Your task to perform on an android device: Open Youtube and go to the subscriptions tab Image 0: 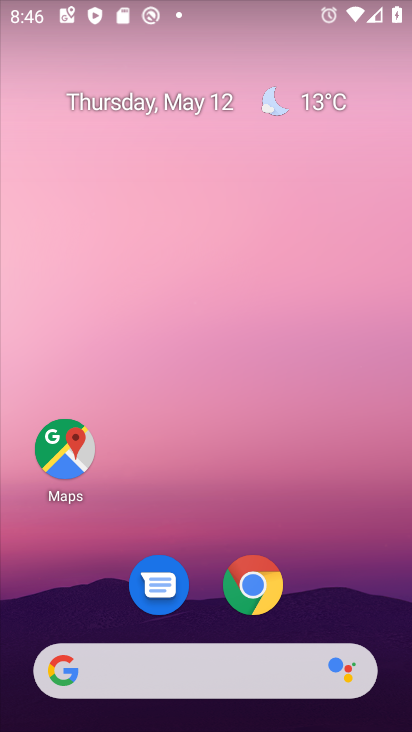
Step 0: drag from (286, 485) to (230, 57)
Your task to perform on an android device: Open Youtube and go to the subscriptions tab Image 1: 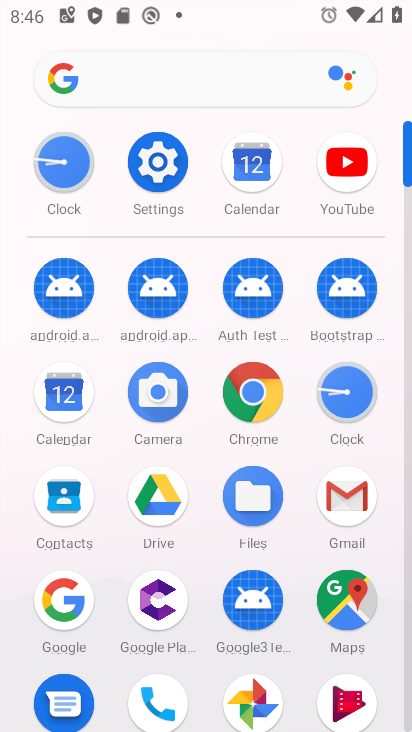
Step 1: click (356, 157)
Your task to perform on an android device: Open Youtube and go to the subscriptions tab Image 2: 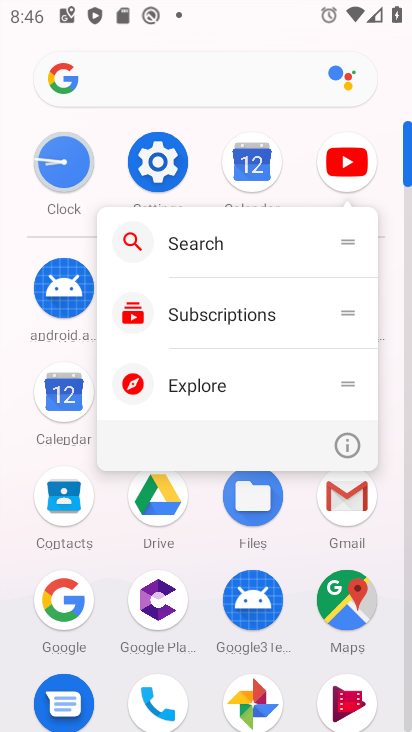
Step 2: click (354, 164)
Your task to perform on an android device: Open Youtube and go to the subscriptions tab Image 3: 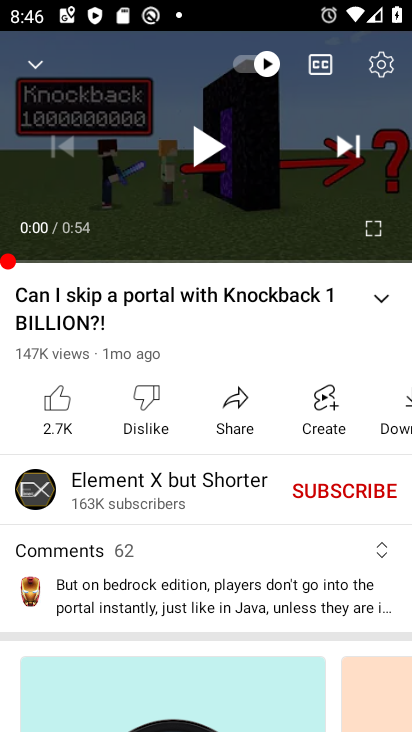
Step 3: press back button
Your task to perform on an android device: Open Youtube and go to the subscriptions tab Image 4: 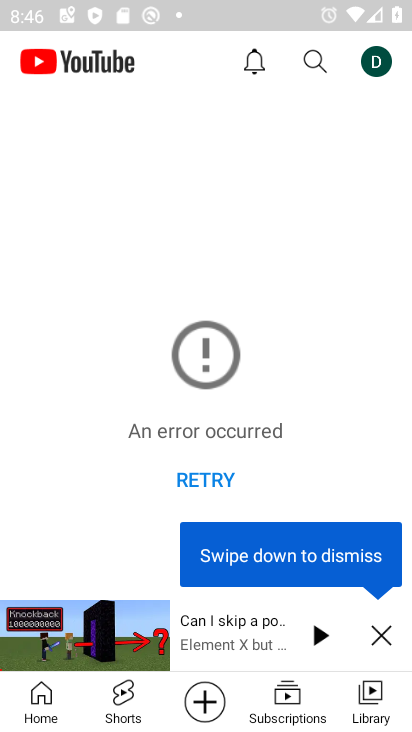
Step 4: click (301, 688)
Your task to perform on an android device: Open Youtube and go to the subscriptions tab Image 5: 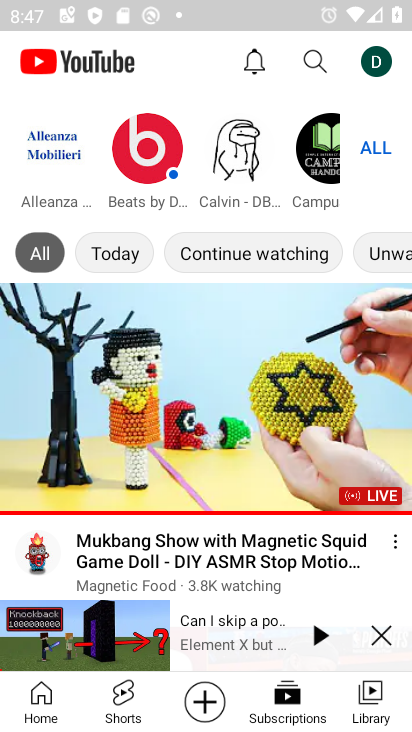
Step 5: task complete